Your task to perform on an android device: Open my contact list Image 0: 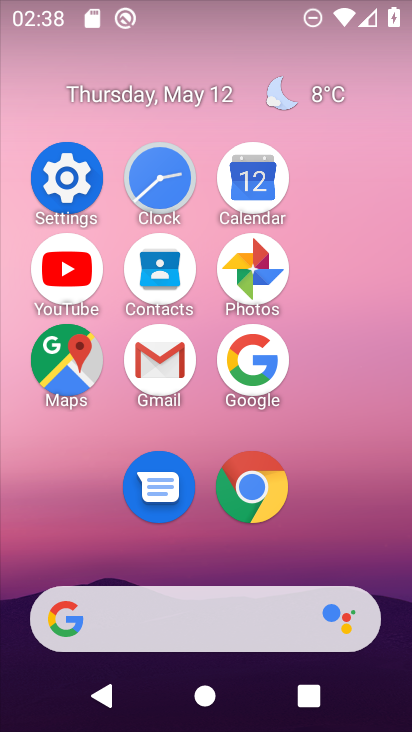
Step 0: click (160, 286)
Your task to perform on an android device: Open my contact list Image 1: 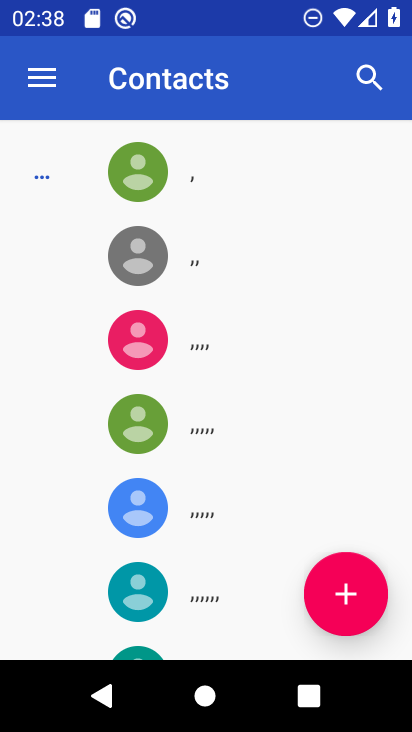
Step 1: task complete